Your task to perform on an android device: open chrome and create a bookmark for the current page Image 0: 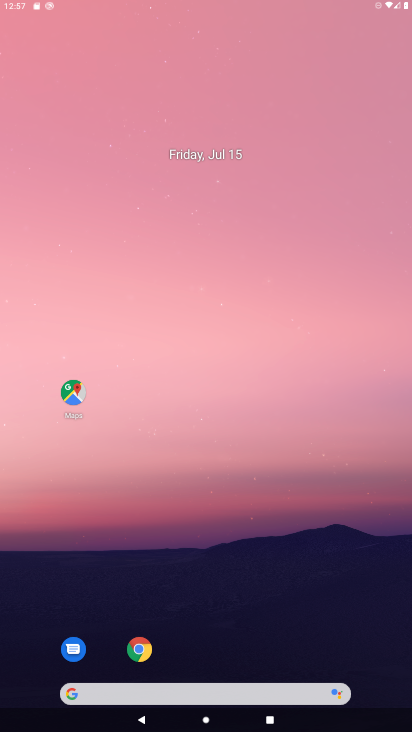
Step 0: click (253, 324)
Your task to perform on an android device: open chrome and create a bookmark for the current page Image 1: 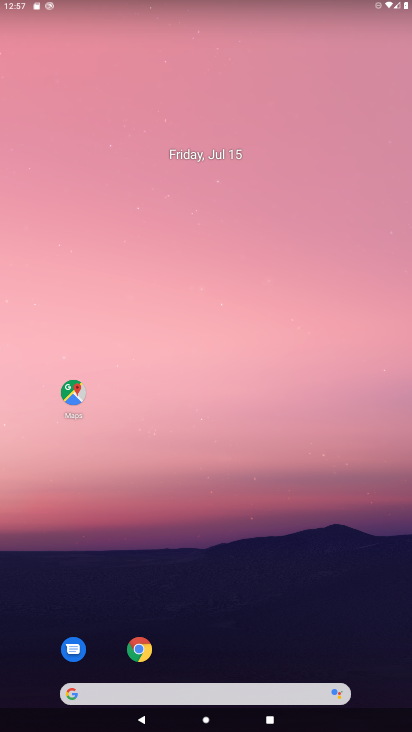
Step 1: drag from (199, 626) to (205, 178)
Your task to perform on an android device: open chrome and create a bookmark for the current page Image 2: 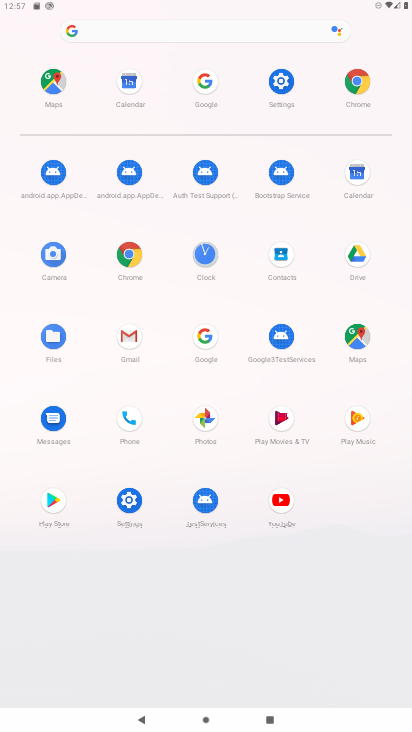
Step 2: click (348, 80)
Your task to perform on an android device: open chrome and create a bookmark for the current page Image 3: 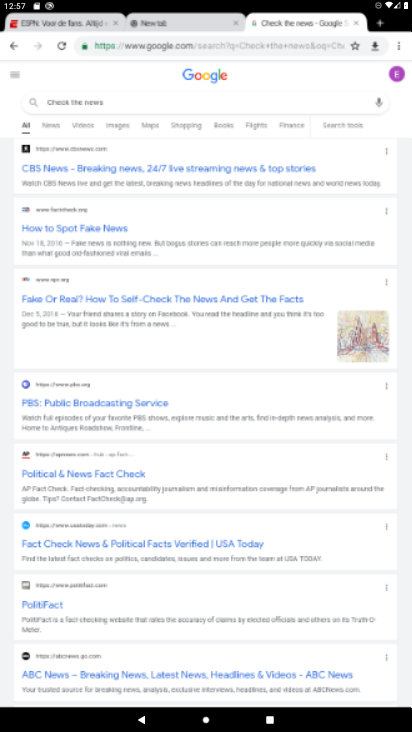
Step 3: click (354, 44)
Your task to perform on an android device: open chrome and create a bookmark for the current page Image 4: 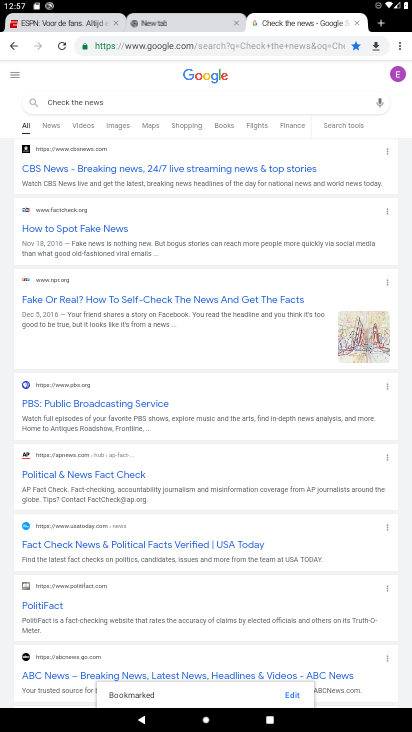
Step 4: task complete